Your task to perform on an android device: add a contact Image 0: 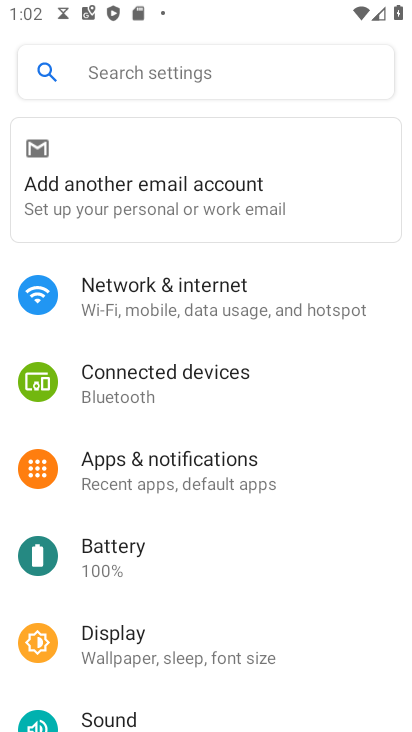
Step 0: press home button
Your task to perform on an android device: add a contact Image 1: 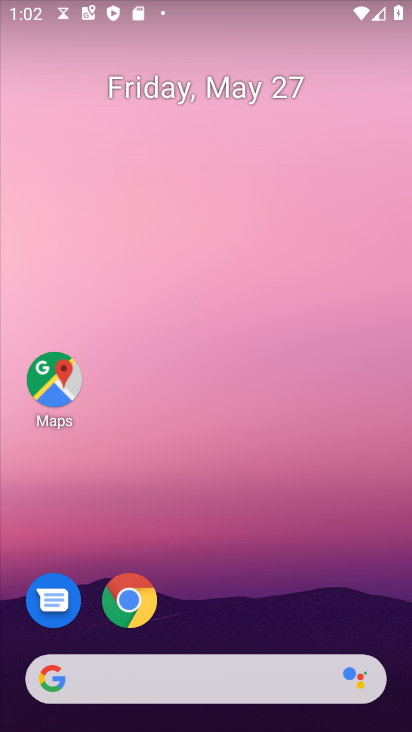
Step 1: drag from (231, 599) to (226, 100)
Your task to perform on an android device: add a contact Image 2: 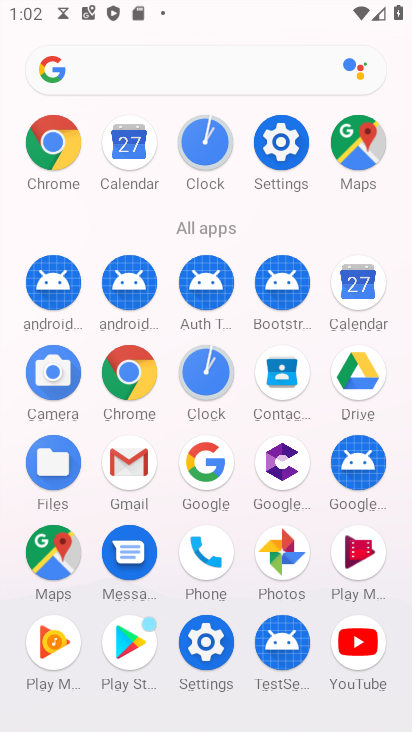
Step 2: click (276, 371)
Your task to perform on an android device: add a contact Image 3: 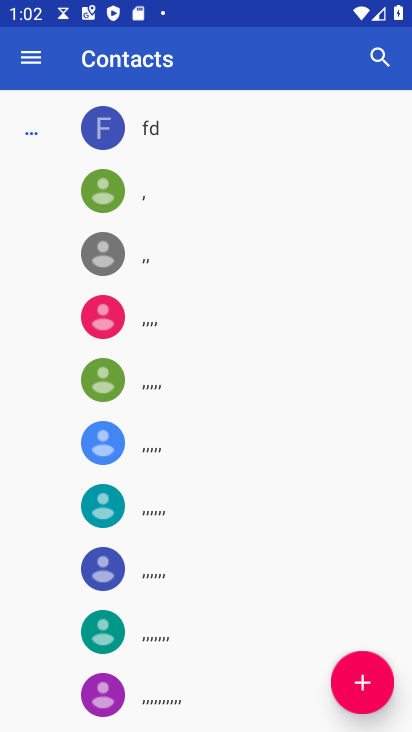
Step 3: click (370, 674)
Your task to perform on an android device: add a contact Image 4: 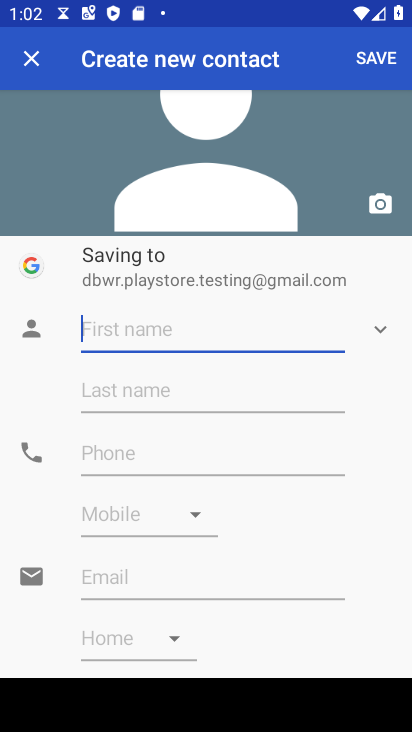
Step 4: type "tdfhg"
Your task to perform on an android device: add a contact Image 5: 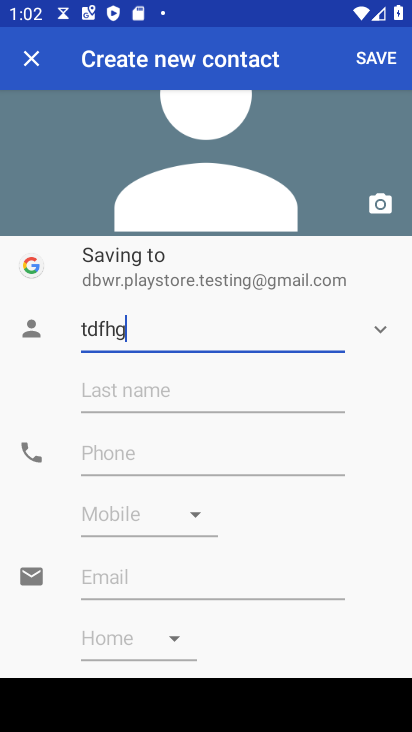
Step 5: click (180, 448)
Your task to perform on an android device: add a contact Image 6: 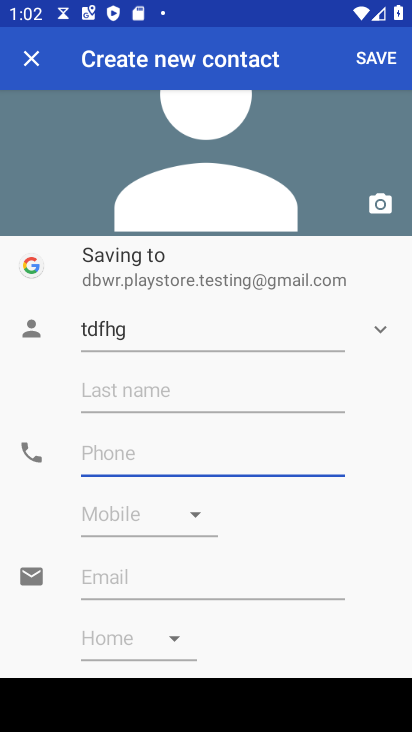
Step 6: type "868709353545"
Your task to perform on an android device: add a contact Image 7: 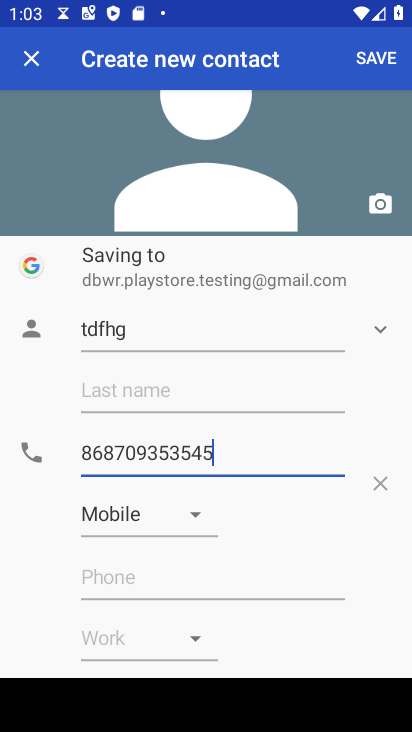
Step 7: click (375, 477)
Your task to perform on an android device: add a contact Image 8: 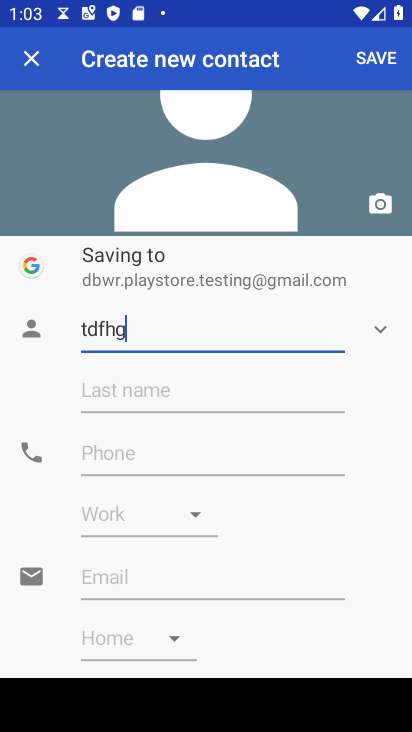
Step 8: click (380, 474)
Your task to perform on an android device: add a contact Image 9: 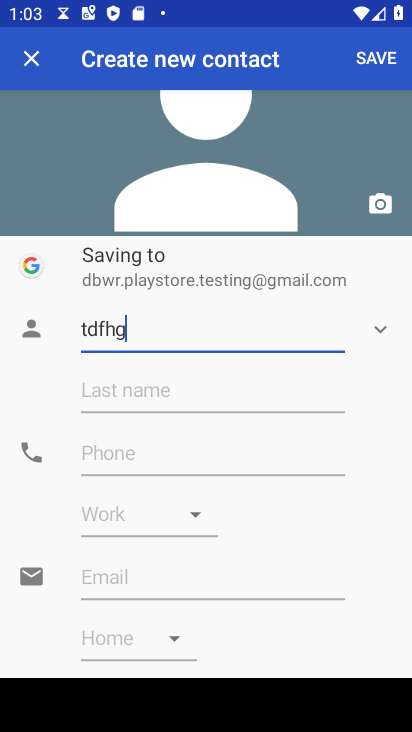
Step 9: click (202, 459)
Your task to perform on an android device: add a contact Image 10: 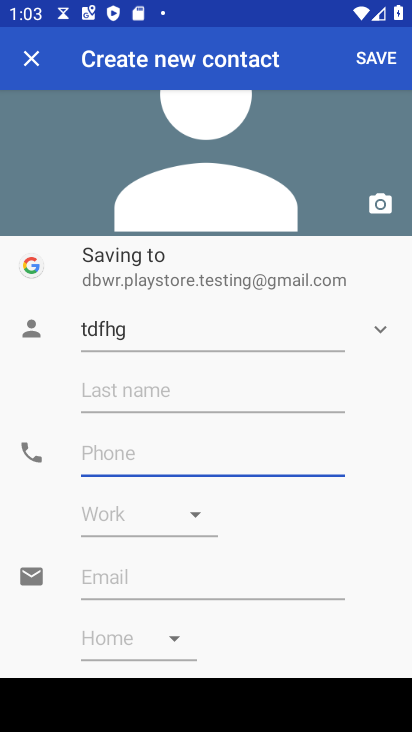
Step 10: click (207, 447)
Your task to perform on an android device: add a contact Image 11: 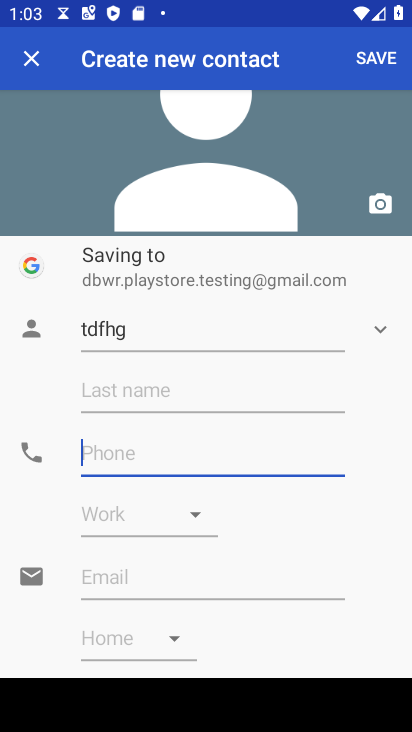
Step 11: type "969783586"
Your task to perform on an android device: add a contact Image 12: 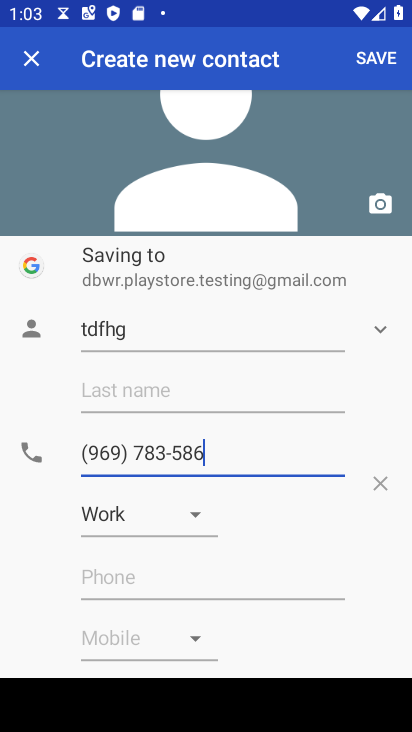
Step 12: click (378, 39)
Your task to perform on an android device: add a contact Image 13: 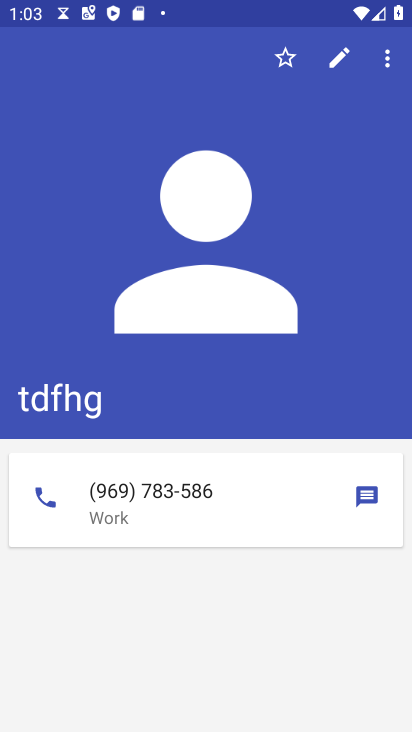
Step 13: task complete